Your task to perform on an android device: turn on wifi Image 0: 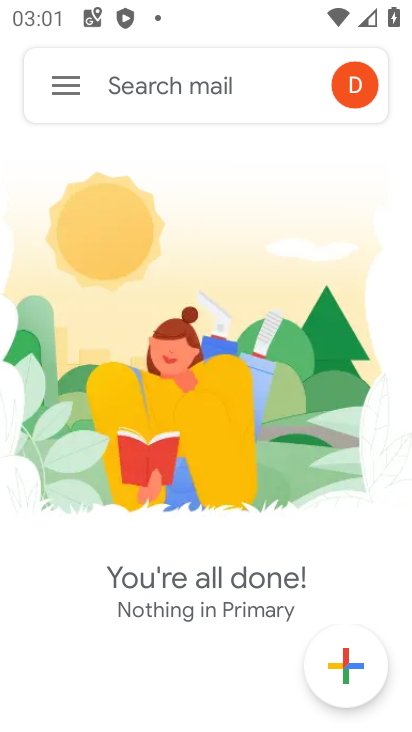
Step 0: press home button
Your task to perform on an android device: turn on wifi Image 1: 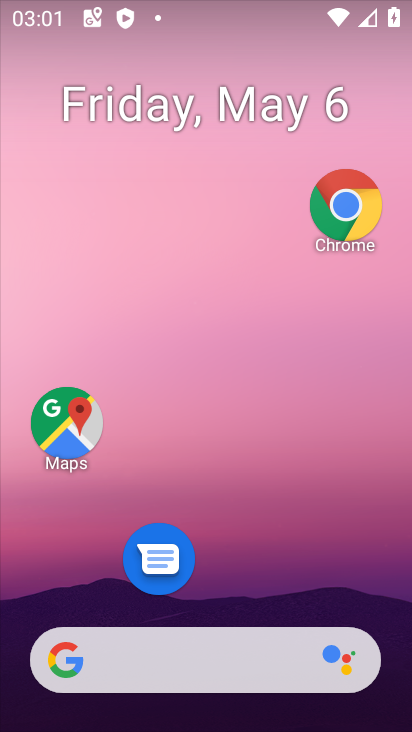
Step 1: drag from (157, 661) to (371, 17)
Your task to perform on an android device: turn on wifi Image 2: 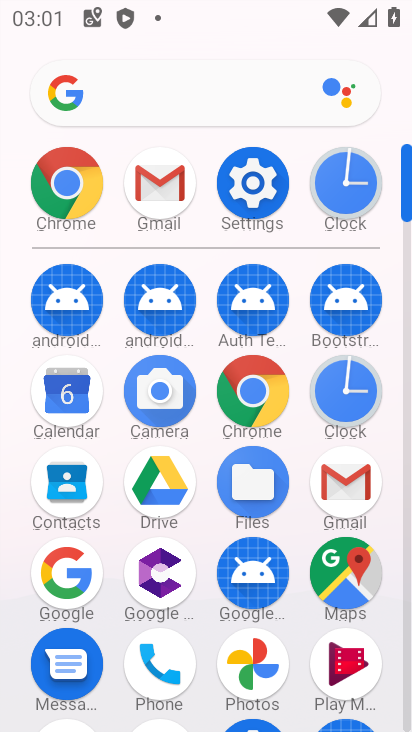
Step 2: click (263, 188)
Your task to perform on an android device: turn on wifi Image 3: 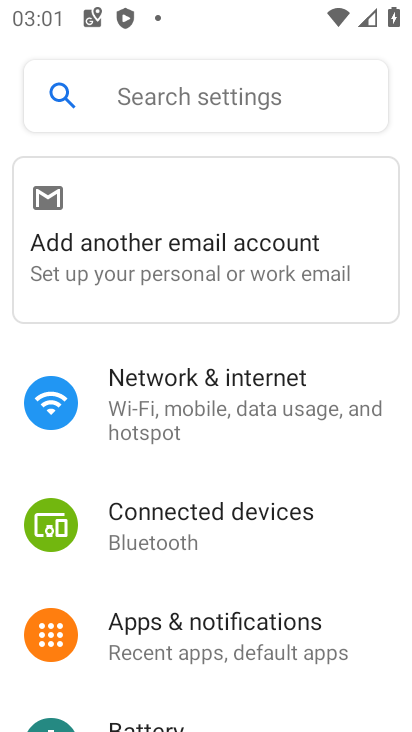
Step 3: click (244, 390)
Your task to perform on an android device: turn on wifi Image 4: 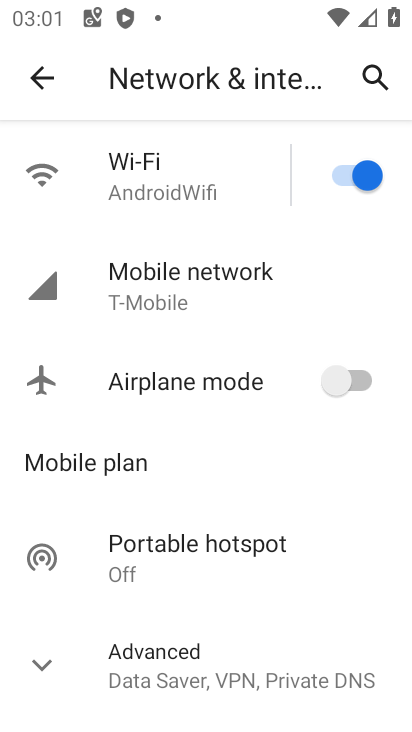
Step 4: task complete